Your task to perform on an android device: read, delete, or share a saved page in the chrome app Image 0: 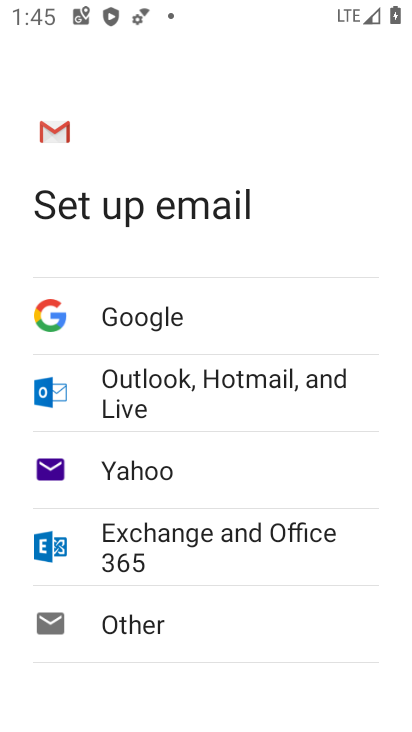
Step 0: press home button
Your task to perform on an android device: read, delete, or share a saved page in the chrome app Image 1: 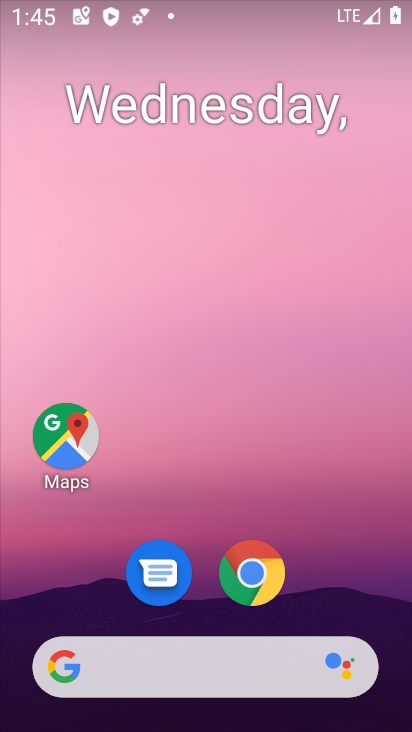
Step 1: click (250, 577)
Your task to perform on an android device: read, delete, or share a saved page in the chrome app Image 2: 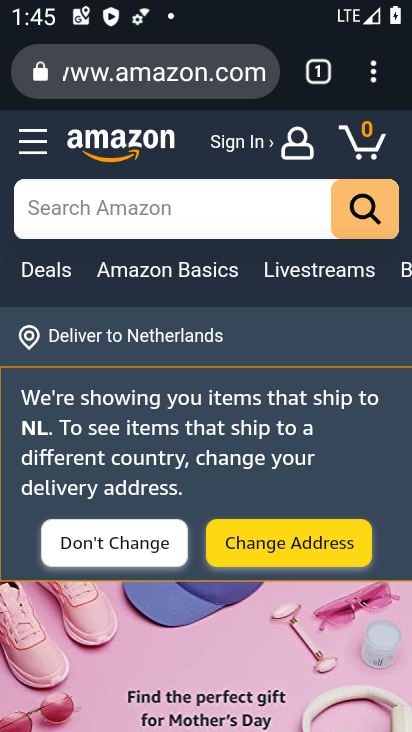
Step 2: click (370, 64)
Your task to perform on an android device: read, delete, or share a saved page in the chrome app Image 3: 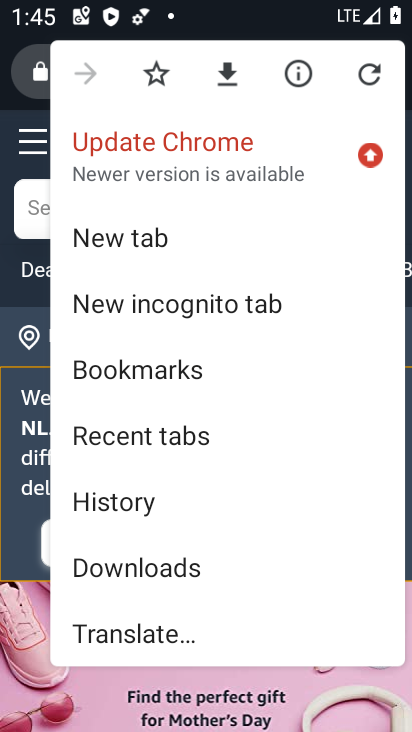
Step 3: click (173, 575)
Your task to perform on an android device: read, delete, or share a saved page in the chrome app Image 4: 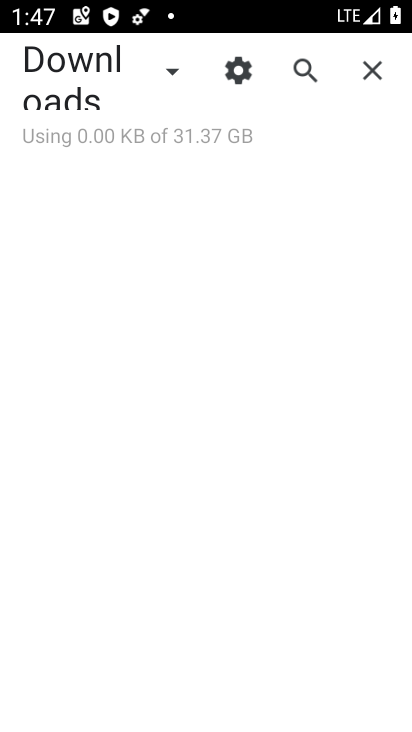
Step 4: task complete